Your task to perform on an android device: Open the stopwatch Image 0: 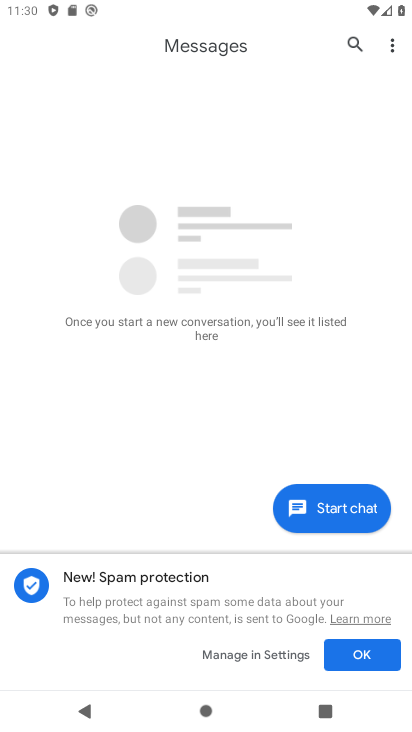
Step 0: click (377, 660)
Your task to perform on an android device: Open the stopwatch Image 1: 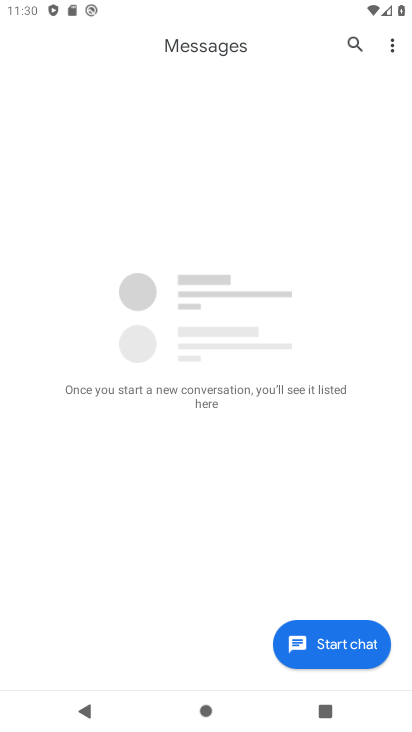
Step 1: press back button
Your task to perform on an android device: Open the stopwatch Image 2: 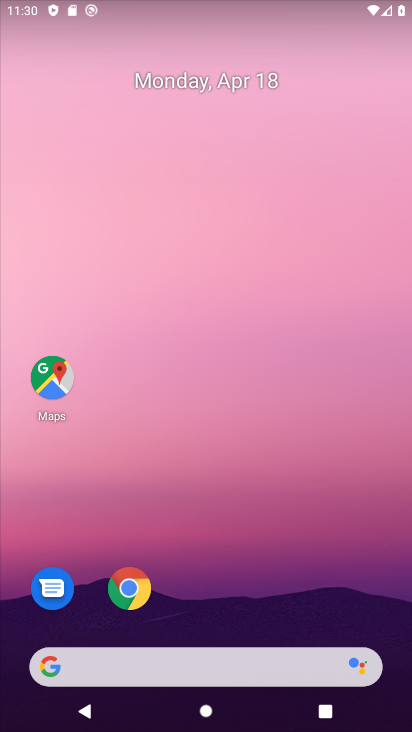
Step 2: drag from (348, 584) to (222, 39)
Your task to perform on an android device: Open the stopwatch Image 3: 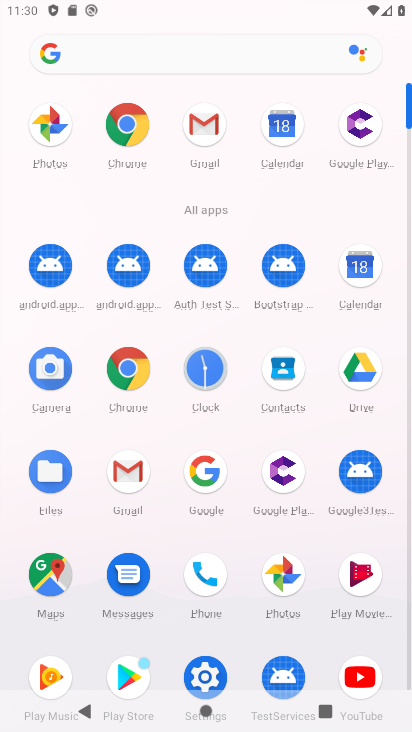
Step 3: drag from (9, 578) to (17, 262)
Your task to perform on an android device: Open the stopwatch Image 4: 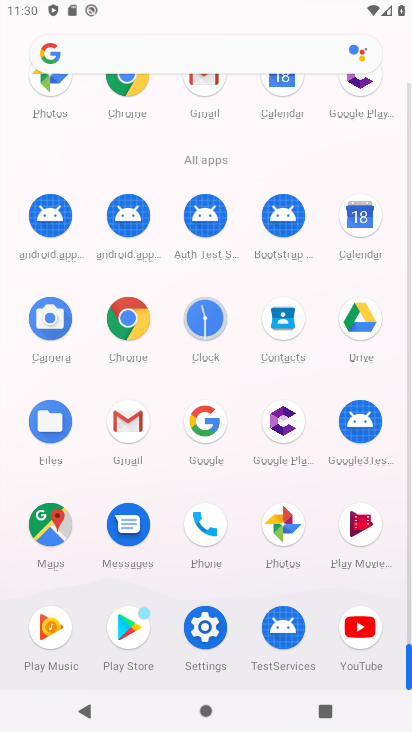
Step 4: click (202, 313)
Your task to perform on an android device: Open the stopwatch Image 5: 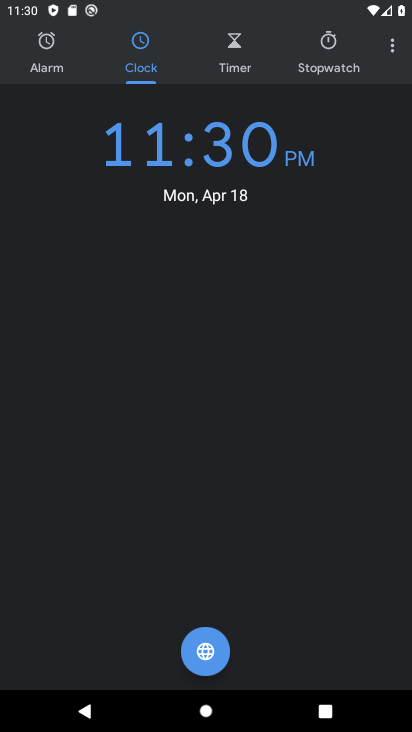
Step 5: click (332, 42)
Your task to perform on an android device: Open the stopwatch Image 6: 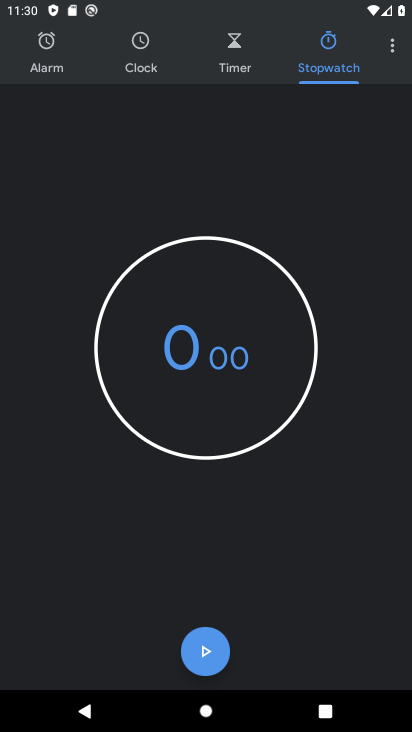
Step 6: task complete